Your task to perform on an android device: Go to Amazon Image 0: 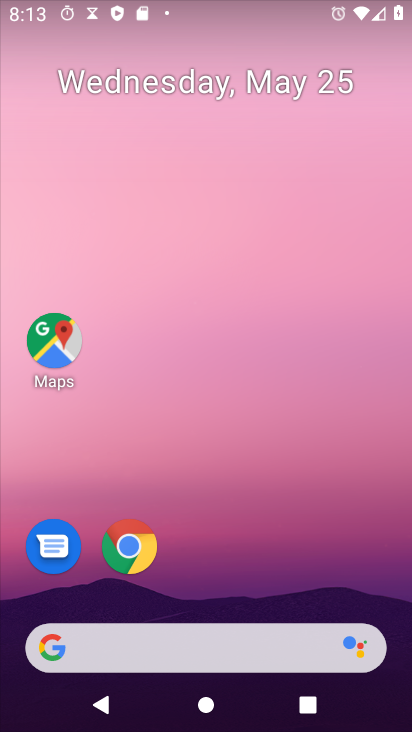
Step 0: click (125, 544)
Your task to perform on an android device: Go to Amazon Image 1: 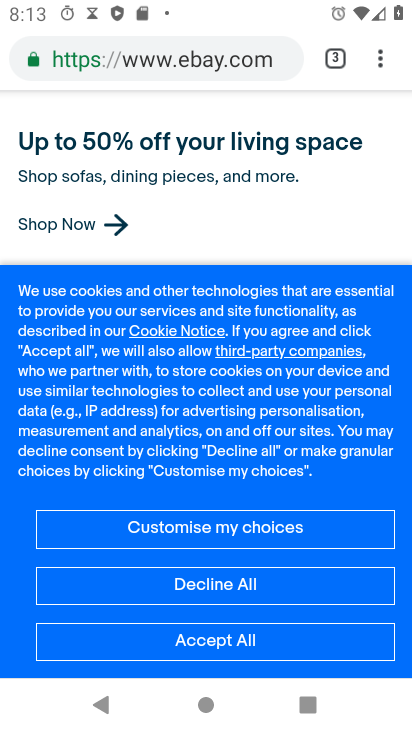
Step 1: click (132, 66)
Your task to perform on an android device: Go to Amazon Image 2: 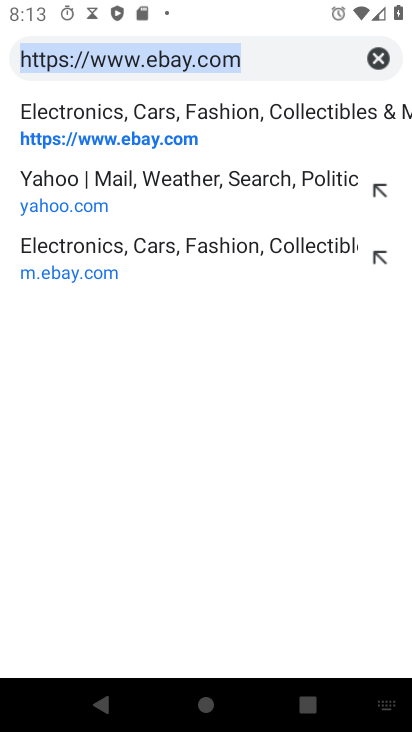
Step 2: type "www.amazon.com"
Your task to perform on an android device: Go to Amazon Image 3: 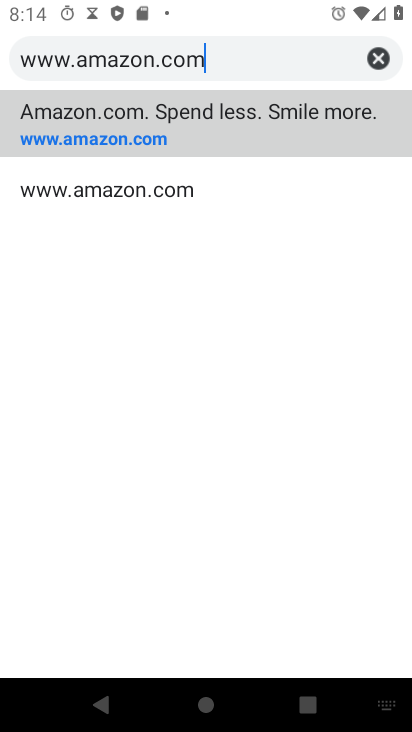
Step 3: click (113, 126)
Your task to perform on an android device: Go to Amazon Image 4: 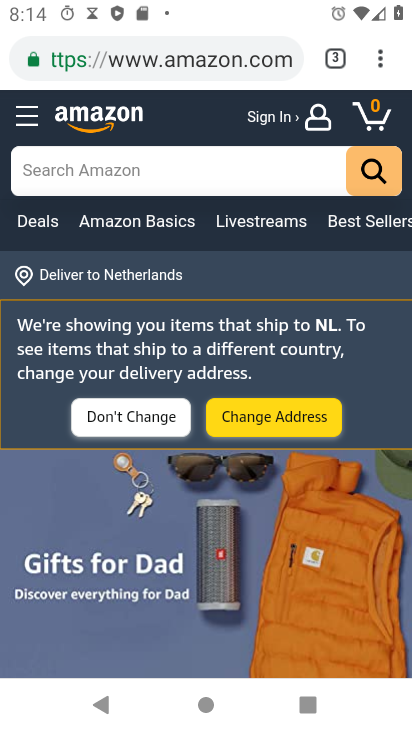
Step 4: task complete